Your task to perform on an android device: choose inbox layout in the gmail app Image 0: 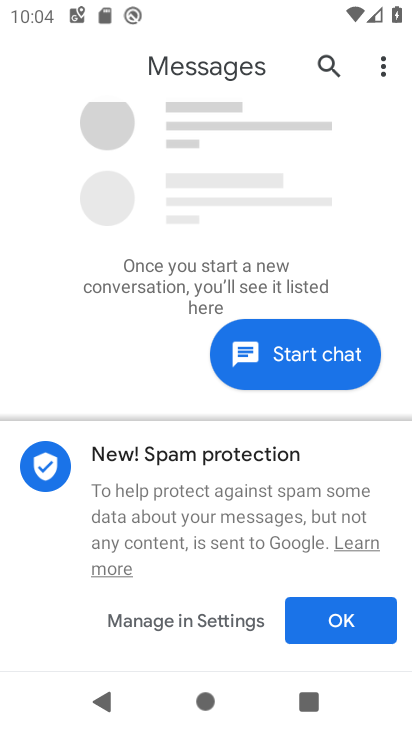
Step 0: press home button
Your task to perform on an android device: choose inbox layout in the gmail app Image 1: 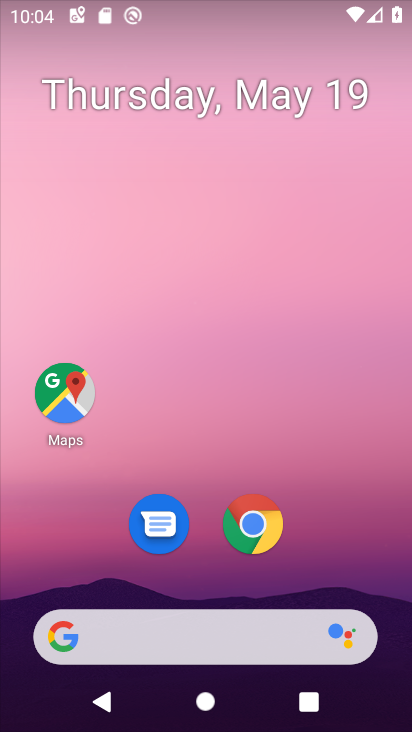
Step 1: drag from (297, 455) to (273, 37)
Your task to perform on an android device: choose inbox layout in the gmail app Image 2: 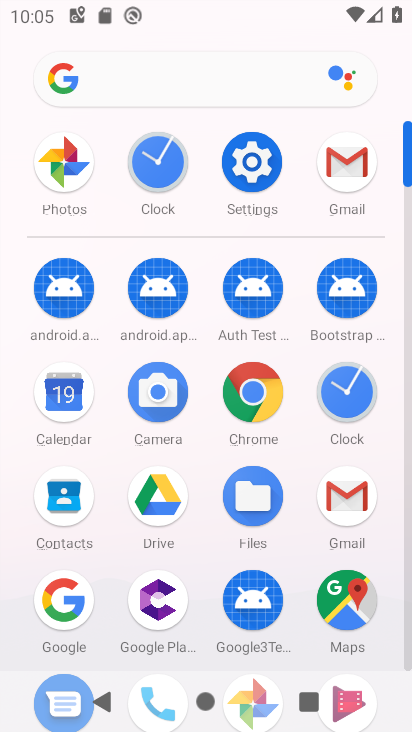
Step 2: click (345, 168)
Your task to perform on an android device: choose inbox layout in the gmail app Image 3: 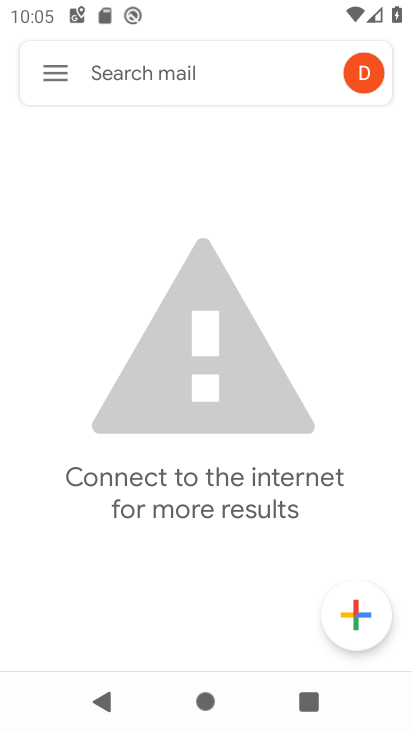
Step 3: click (55, 73)
Your task to perform on an android device: choose inbox layout in the gmail app Image 4: 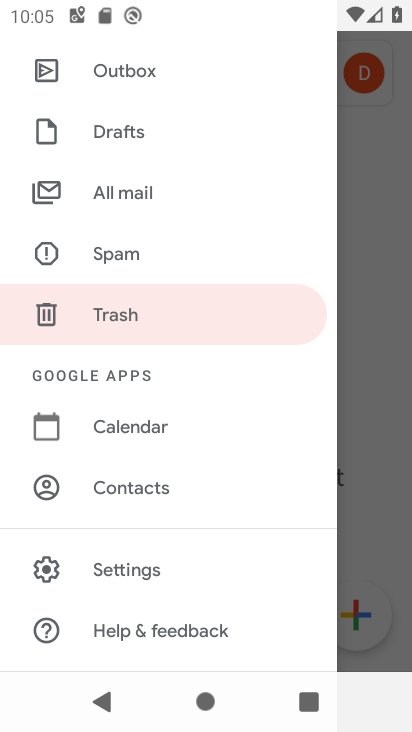
Step 4: click (127, 556)
Your task to perform on an android device: choose inbox layout in the gmail app Image 5: 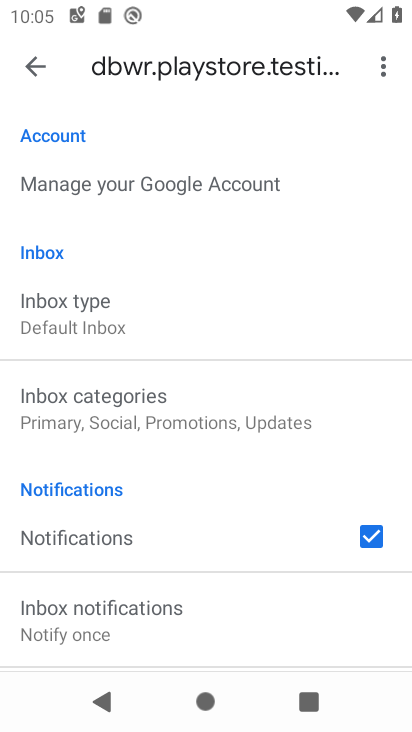
Step 5: click (109, 306)
Your task to perform on an android device: choose inbox layout in the gmail app Image 6: 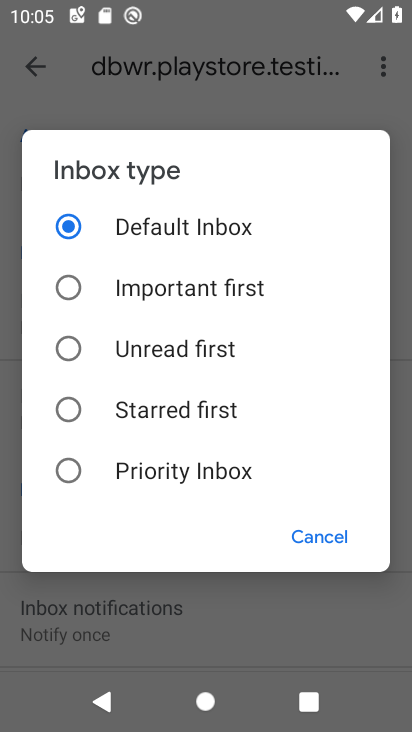
Step 6: click (115, 281)
Your task to perform on an android device: choose inbox layout in the gmail app Image 7: 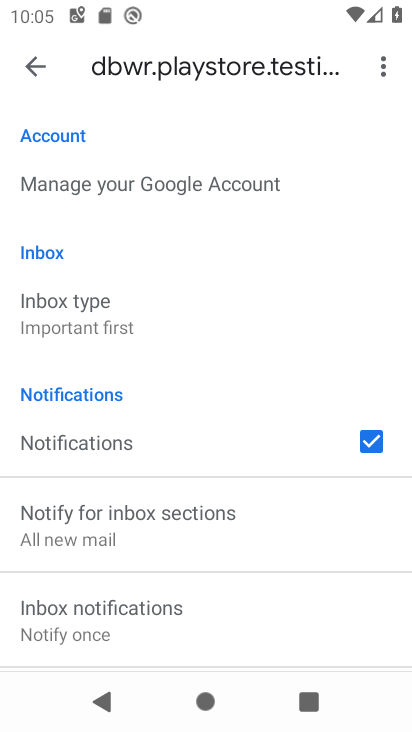
Step 7: task complete